Your task to perform on an android device: turn on airplane mode Image 0: 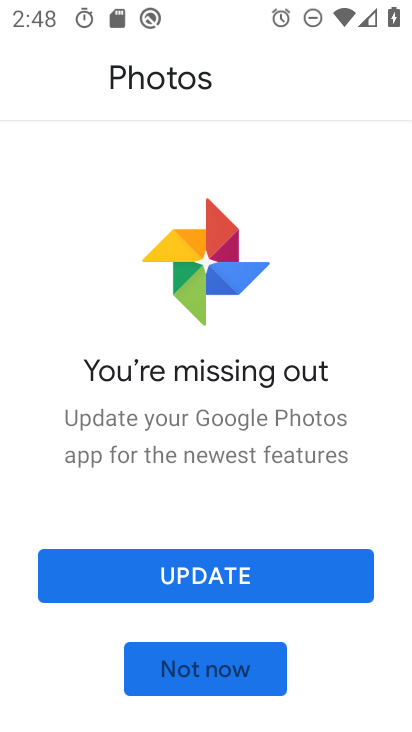
Step 0: press home button
Your task to perform on an android device: turn on airplane mode Image 1: 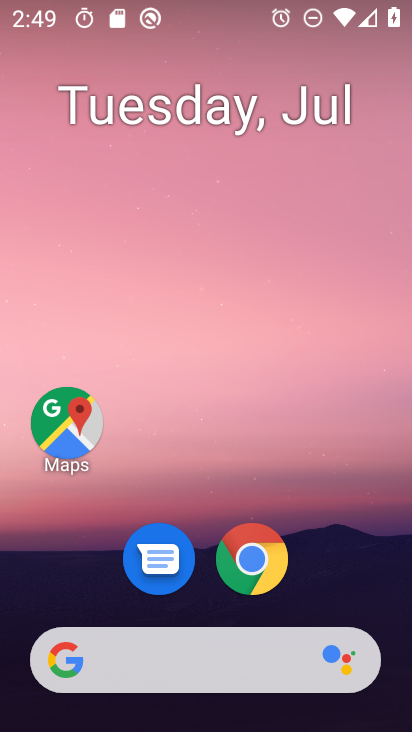
Step 1: drag from (355, 586) to (347, 127)
Your task to perform on an android device: turn on airplane mode Image 2: 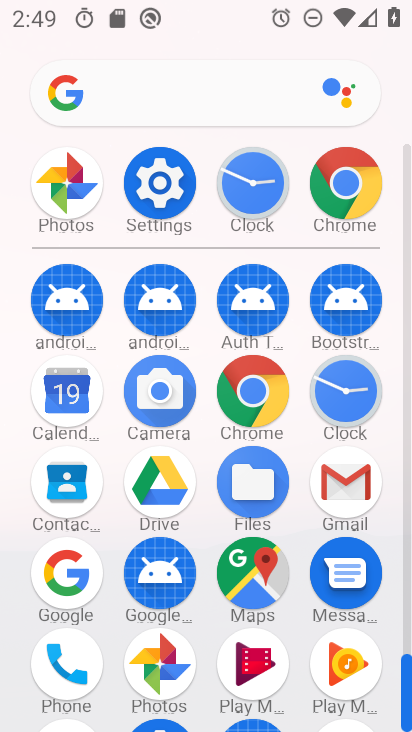
Step 2: click (168, 196)
Your task to perform on an android device: turn on airplane mode Image 3: 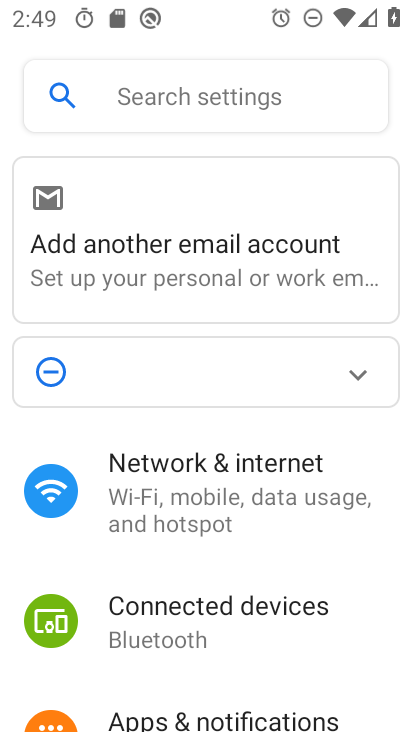
Step 3: click (285, 462)
Your task to perform on an android device: turn on airplane mode Image 4: 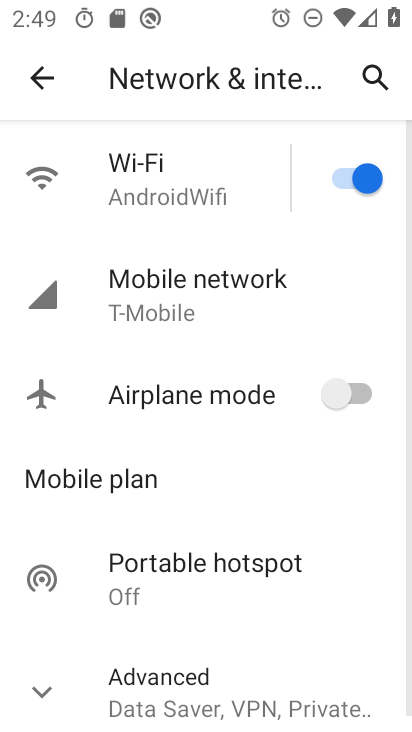
Step 4: click (353, 399)
Your task to perform on an android device: turn on airplane mode Image 5: 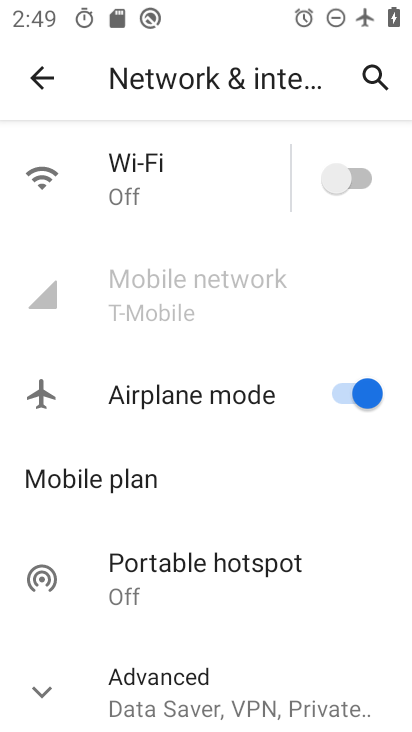
Step 5: task complete